Your task to perform on an android device: see tabs open on other devices in the chrome app Image 0: 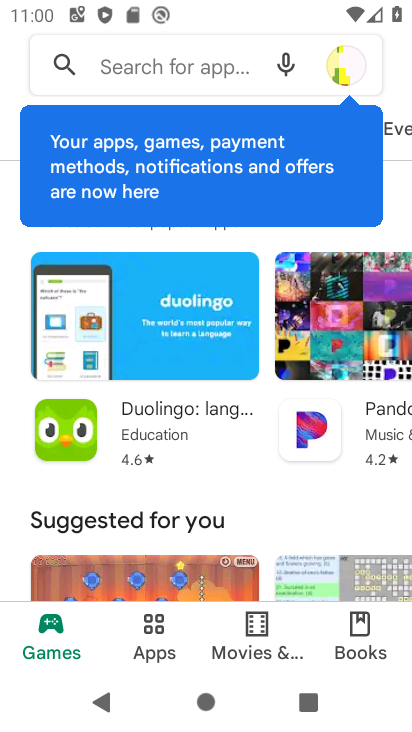
Step 0: press home button
Your task to perform on an android device: see tabs open on other devices in the chrome app Image 1: 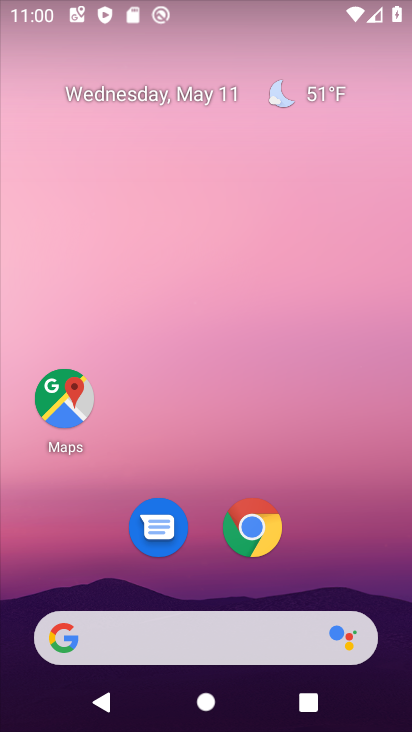
Step 1: click (266, 535)
Your task to perform on an android device: see tabs open on other devices in the chrome app Image 2: 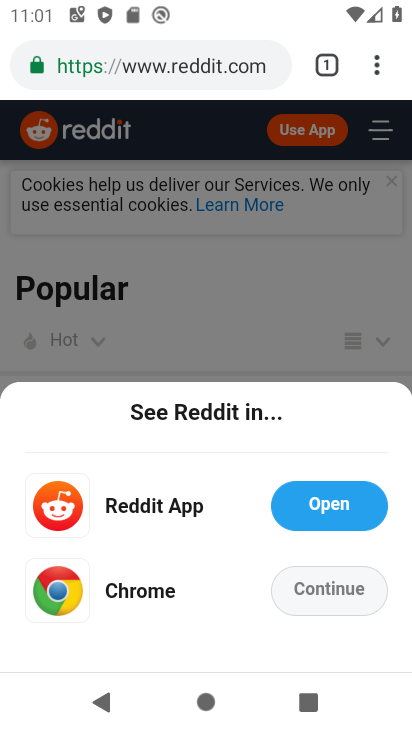
Step 2: click (379, 60)
Your task to perform on an android device: see tabs open on other devices in the chrome app Image 3: 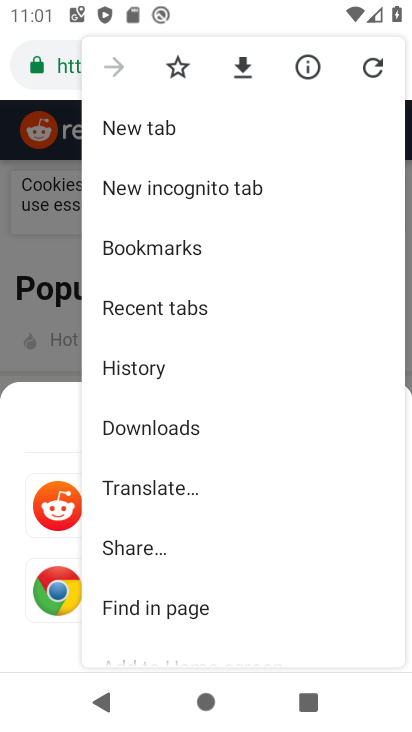
Step 3: click (198, 312)
Your task to perform on an android device: see tabs open on other devices in the chrome app Image 4: 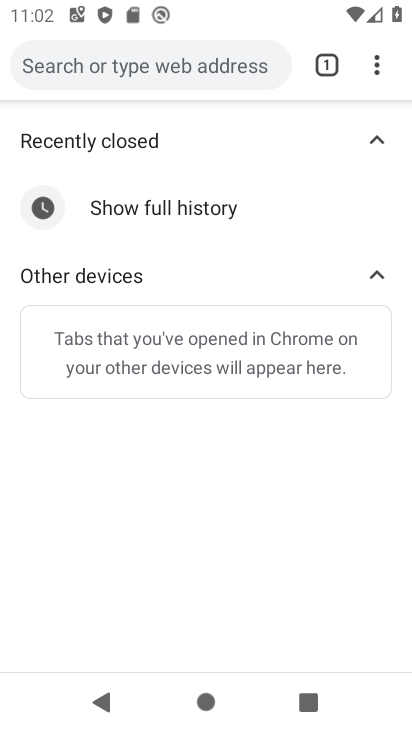
Step 4: task complete